Your task to perform on an android device: turn on the 24-hour format for clock Image 0: 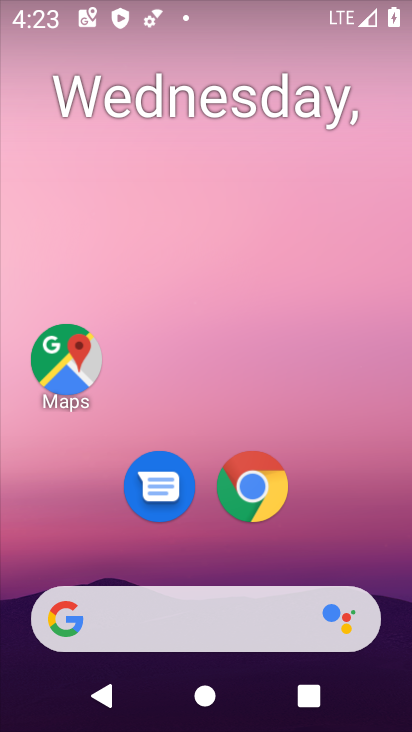
Step 0: drag from (191, 509) to (224, 192)
Your task to perform on an android device: turn on the 24-hour format for clock Image 1: 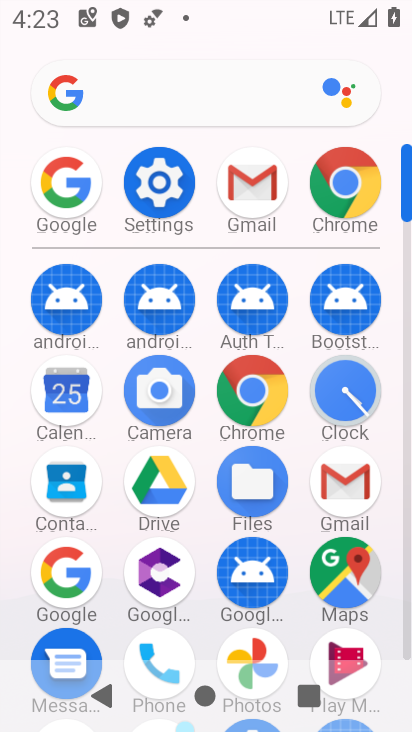
Step 1: drag from (194, 628) to (208, 314)
Your task to perform on an android device: turn on the 24-hour format for clock Image 2: 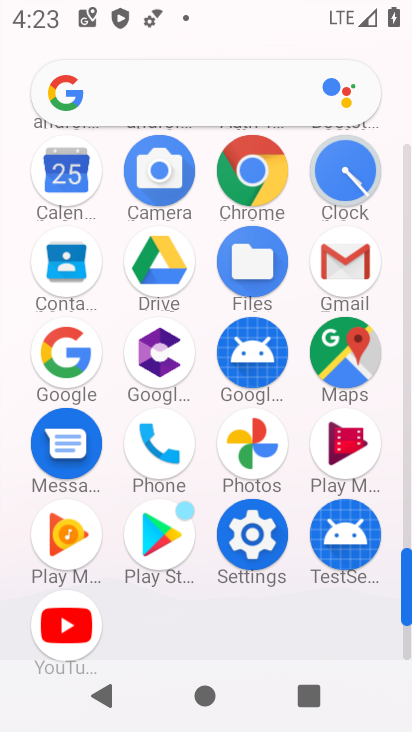
Step 2: click (347, 187)
Your task to perform on an android device: turn on the 24-hour format for clock Image 3: 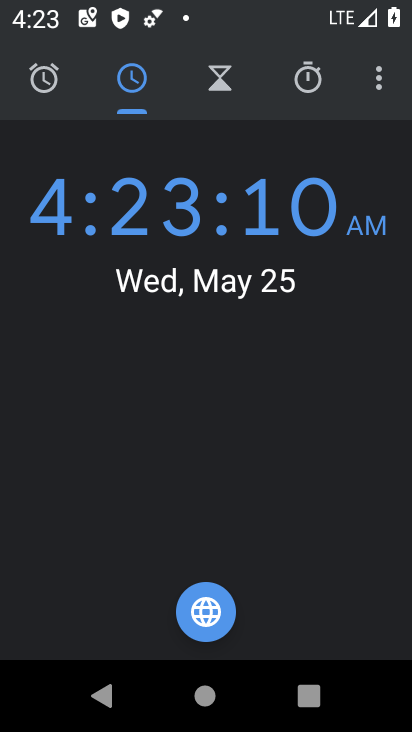
Step 3: click (377, 79)
Your task to perform on an android device: turn on the 24-hour format for clock Image 4: 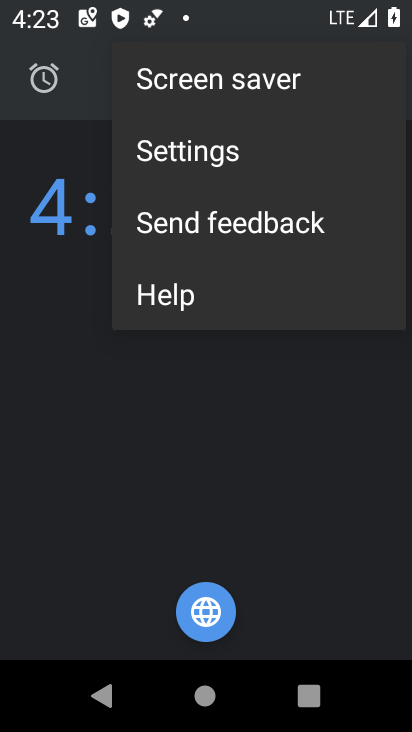
Step 4: click (198, 152)
Your task to perform on an android device: turn on the 24-hour format for clock Image 5: 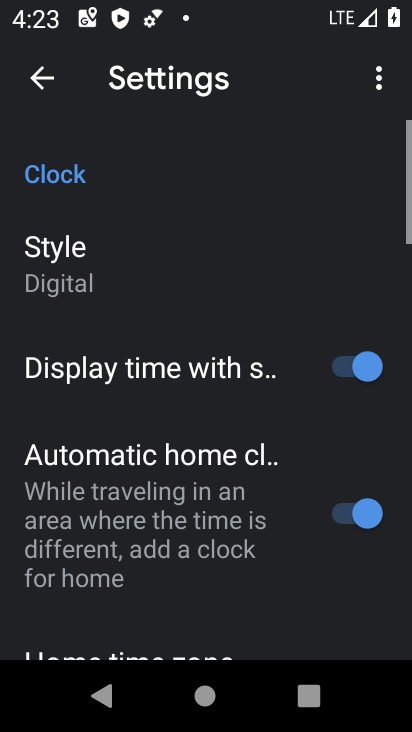
Step 5: drag from (139, 626) to (105, 208)
Your task to perform on an android device: turn on the 24-hour format for clock Image 6: 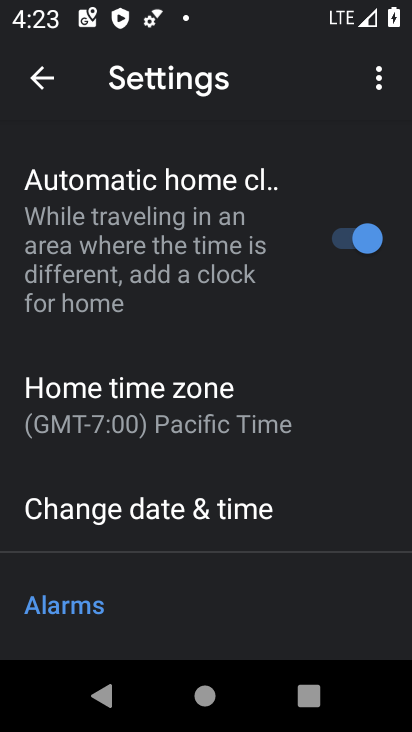
Step 6: drag from (161, 621) to (180, 320)
Your task to perform on an android device: turn on the 24-hour format for clock Image 7: 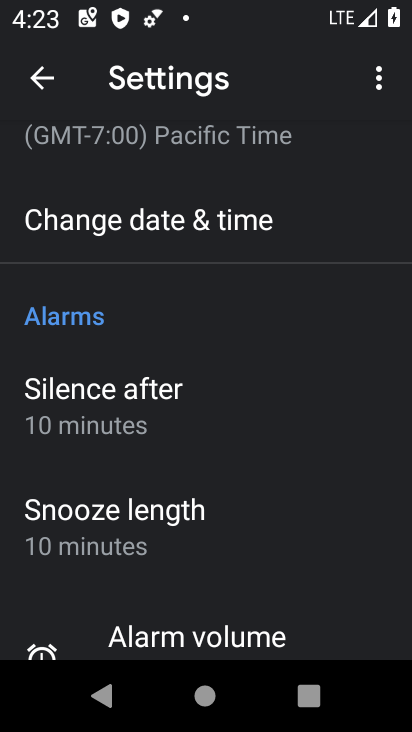
Step 7: click (132, 229)
Your task to perform on an android device: turn on the 24-hour format for clock Image 8: 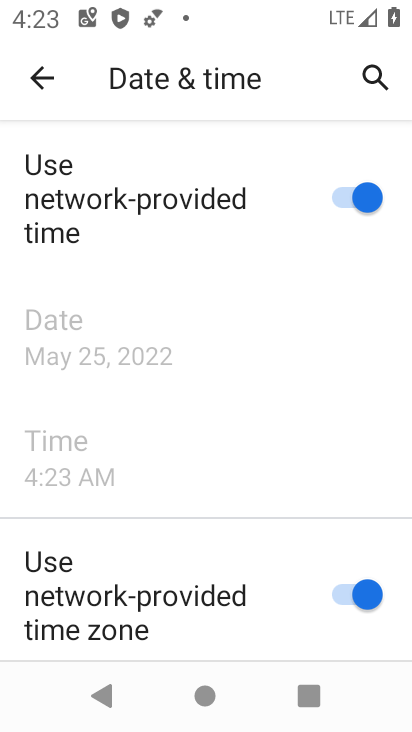
Step 8: drag from (170, 630) to (225, 238)
Your task to perform on an android device: turn on the 24-hour format for clock Image 9: 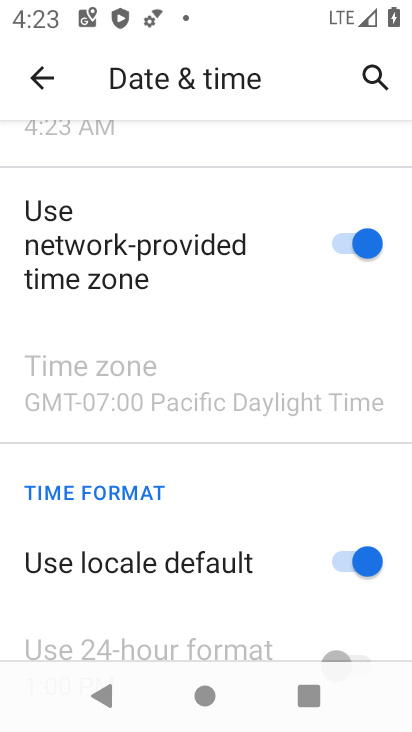
Step 9: drag from (178, 606) to (181, 331)
Your task to perform on an android device: turn on the 24-hour format for clock Image 10: 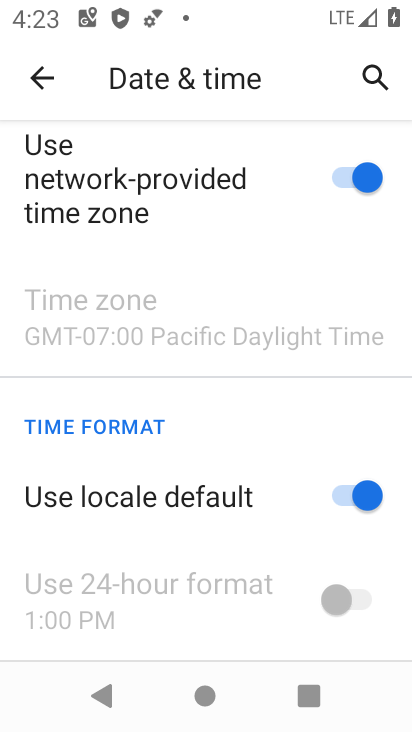
Step 10: click (355, 486)
Your task to perform on an android device: turn on the 24-hour format for clock Image 11: 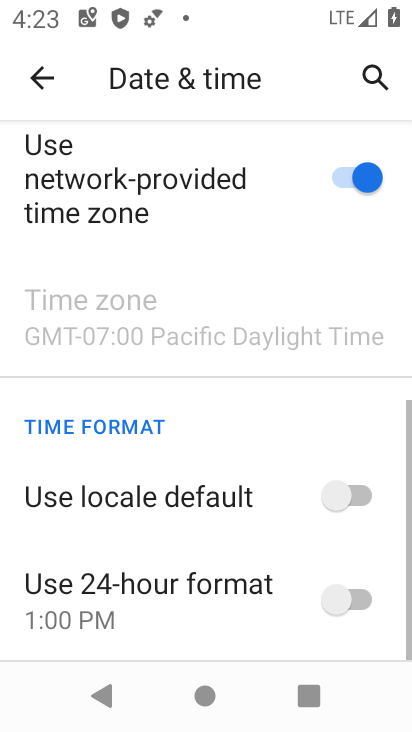
Step 11: click (351, 602)
Your task to perform on an android device: turn on the 24-hour format for clock Image 12: 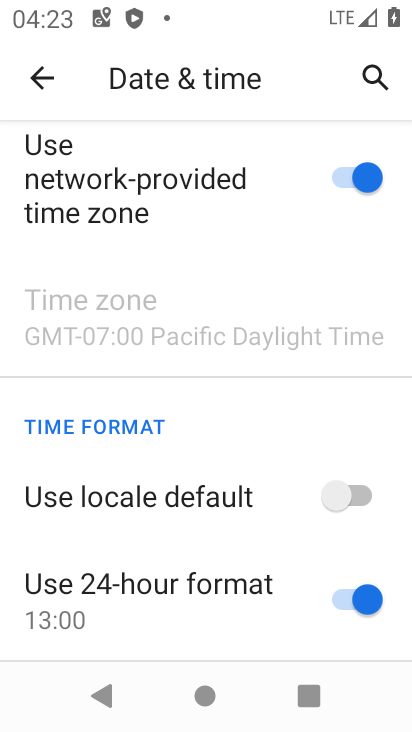
Step 12: task complete